Your task to perform on an android device: see tabs open on other devices in the chrome app Image 0: 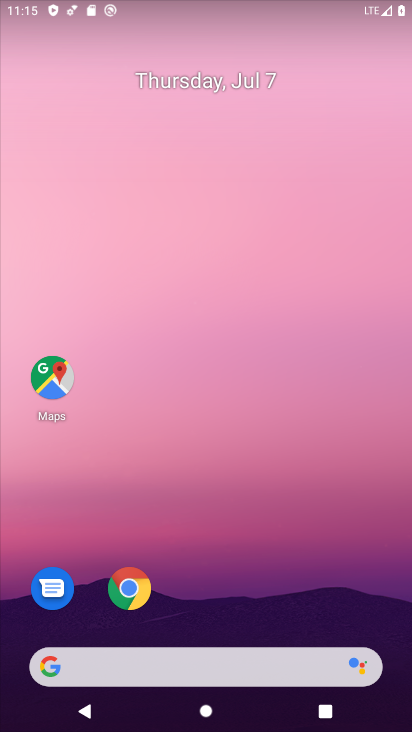
Step 0: drag from (229, 636) to (232, 44)
Your task to perform on an android device: see tabs open on other devices in the chrome app Image 1: 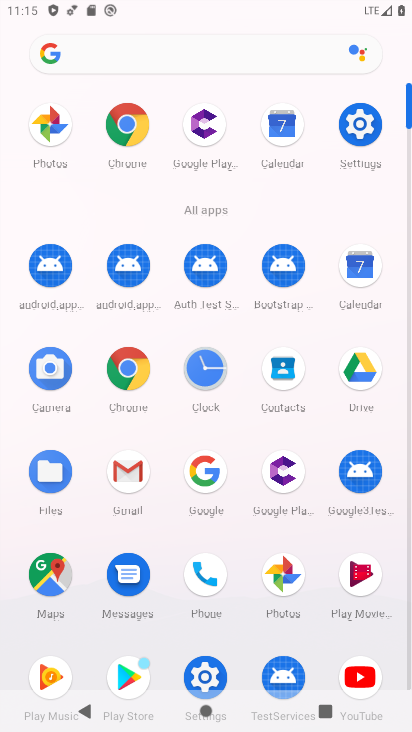
Step 1: click (135, 116)
Your task to perform on an android device: see tabs open on other devices in the chrome app Image 2: 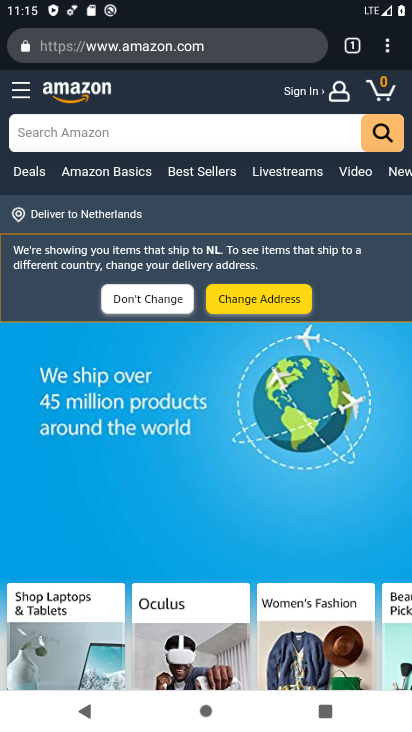
Step 2: click (380, 45)
Your task to perform on an android device: see tabs open on other devices in the chrome app Image 3: 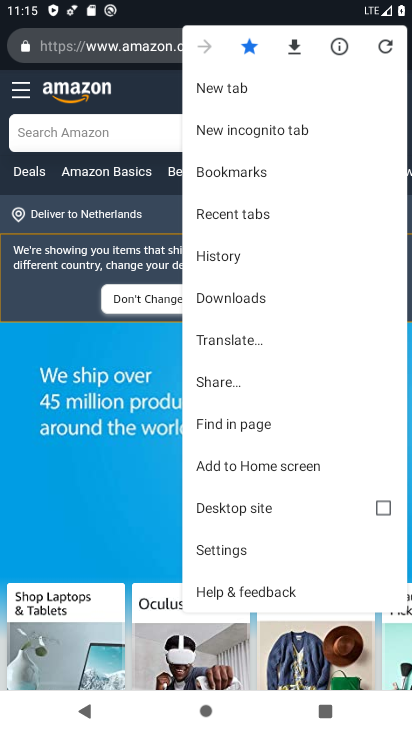
Step 3: click (171, 273)
Your task to perform on an android device: see tabs open on other devices in the chrome app Image 4: 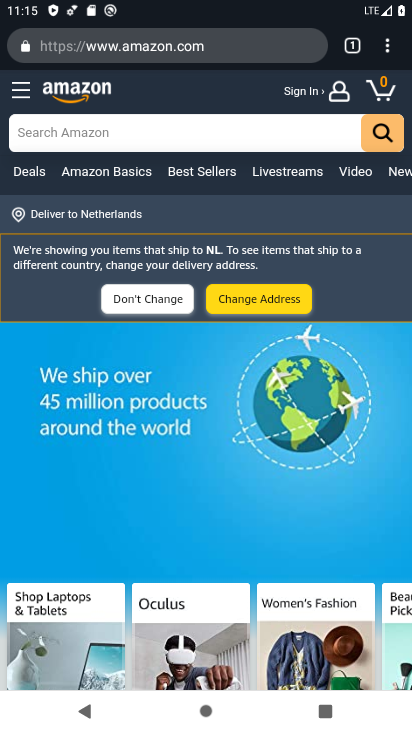
Step 4: click (394, 41)
Your task to perform on an android device: see tabs open on other devices in the chrome app Image 5: 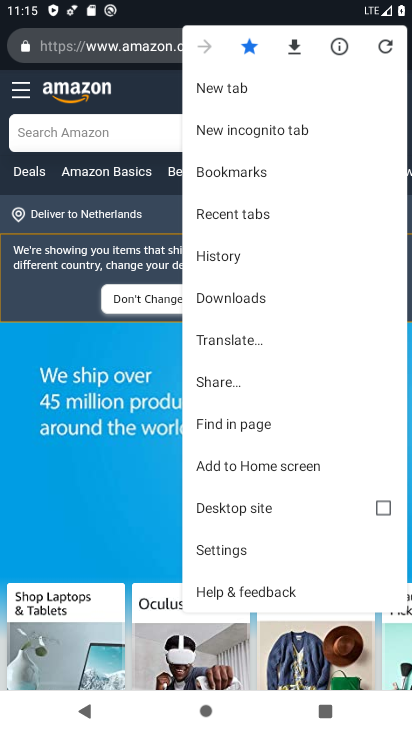
Step 5: click (233, 263)
Your task to perform on an android device: see tabs open on other devices in the chrome app Image 6: 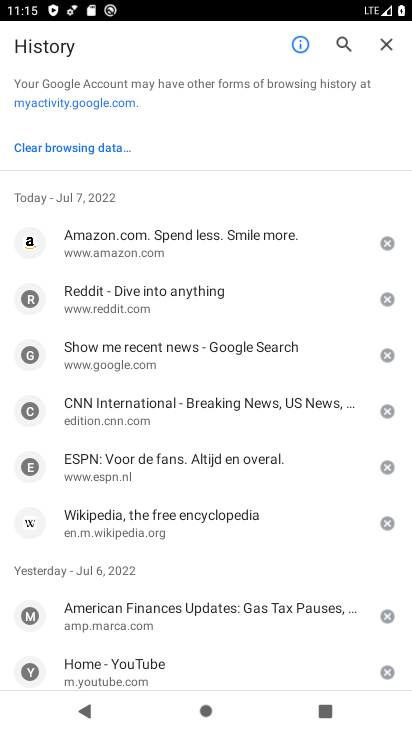
Step 6: task complete